Your task to perform on an android device: Open Android settings Image 0: 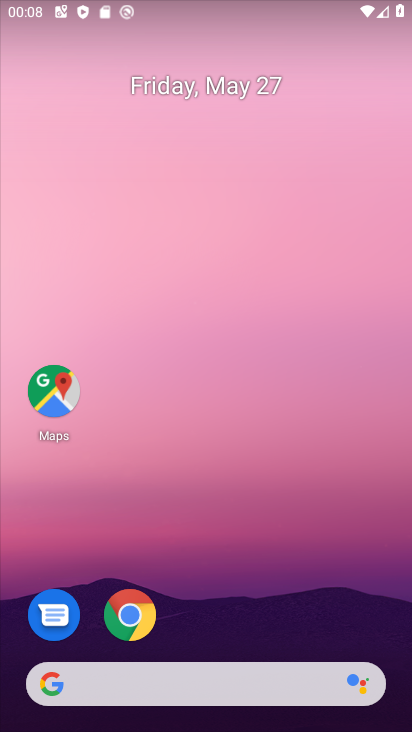
Step 0: drag from (380, 615) to (381, 148)
Your task to perform on an android device: Open Android settings Image 1: 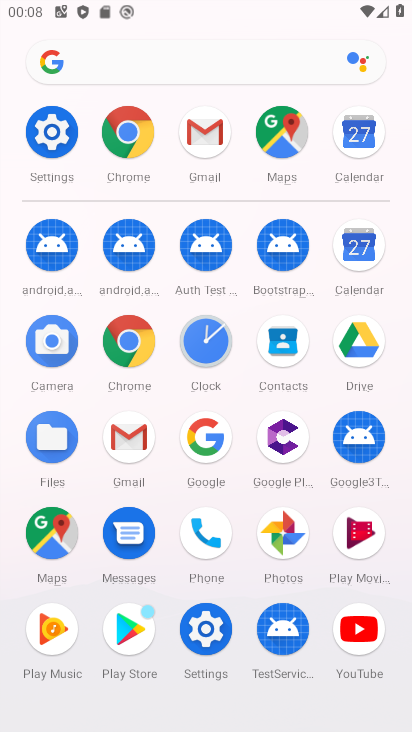
Step 1: click (213, 632)
Your task to perform on an android device: Open Android settings Image 2: 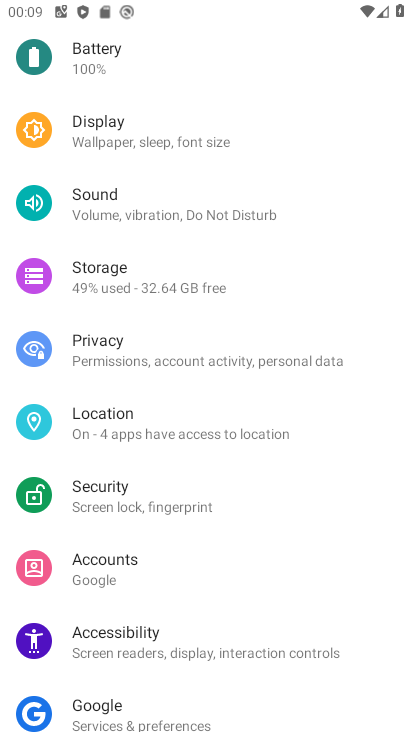
Step 2: drag from (326, 233) to (327, 326)
Your task to perform on an android device: Open Android settings Image 3: 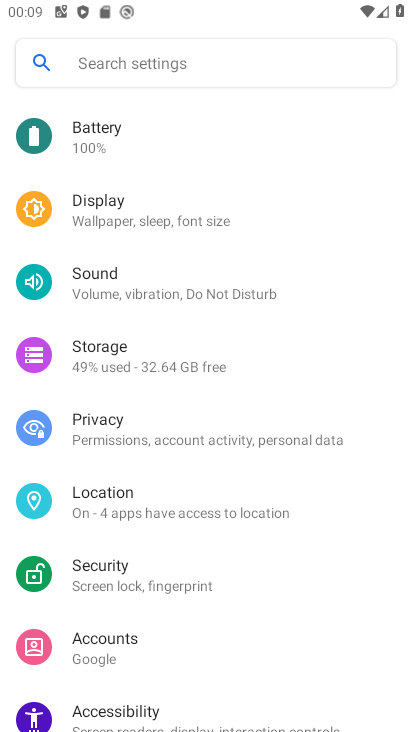
Step 3: drag from (355, 204) to (357, 322)
Your task to perform on an android device: Open Android settings Image 4: 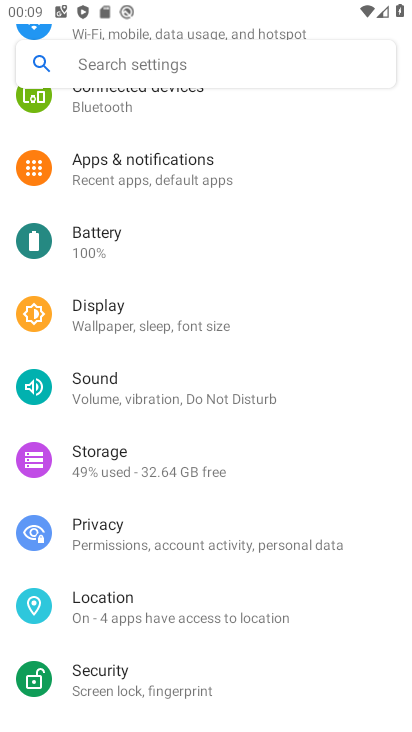
Step 4: drag from (367, 188) to (355, 333)
Your task to perform on an android device: Open Android settings Image 5: 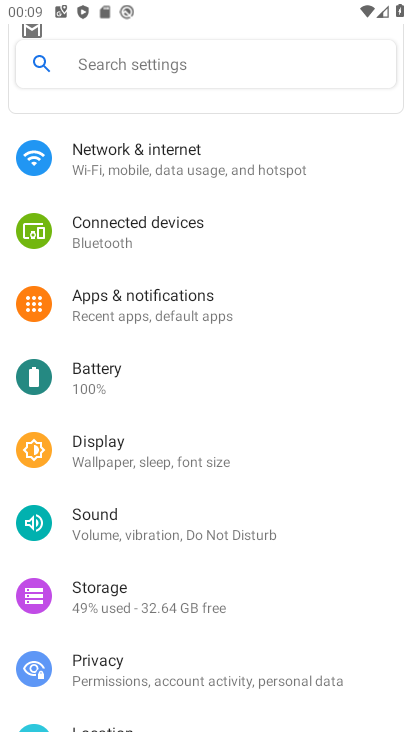
Step 5: drag from (350, 161) to (344, 303)
Your task to perform on an android device: Open Android settings Image 6: 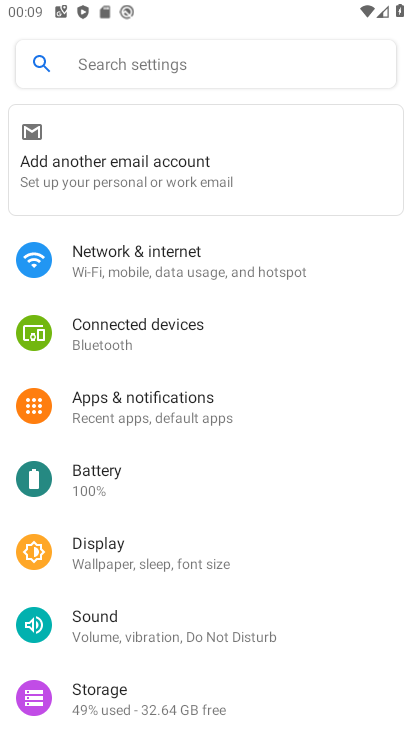
Step 6: drag from (351, 160) to (349, 279)
Your task to perform on an android device: Open Android settings Image 7: 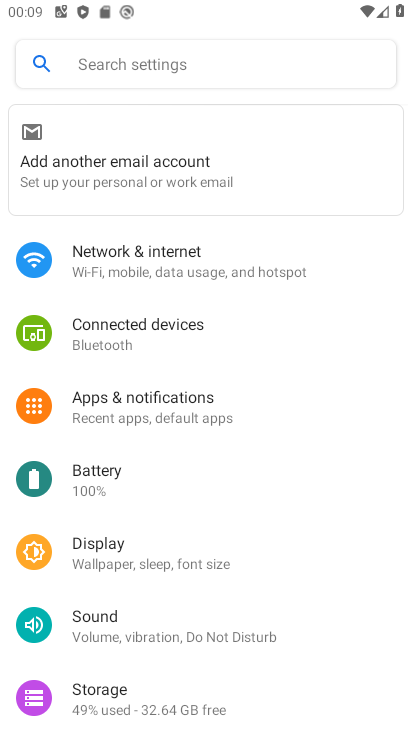
Step 7: drag from (326, 472) to (338, 235)
Your task to perform on an android device: Open Android settings Image 8: 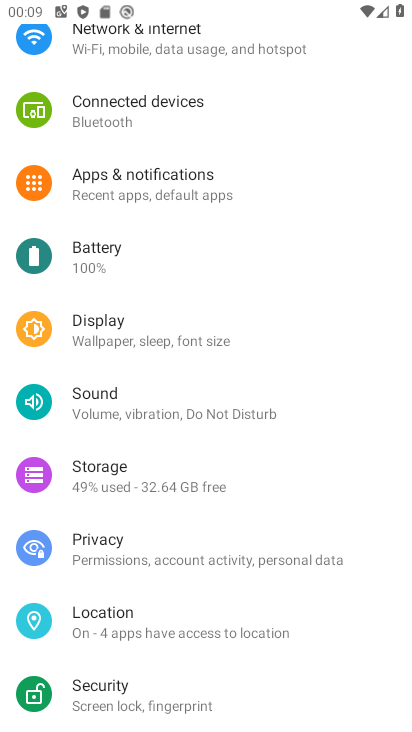
Step 8: drag from (327, 430) to (340, 253)
Your task to perform on an android device: Open Android settings Image 9: 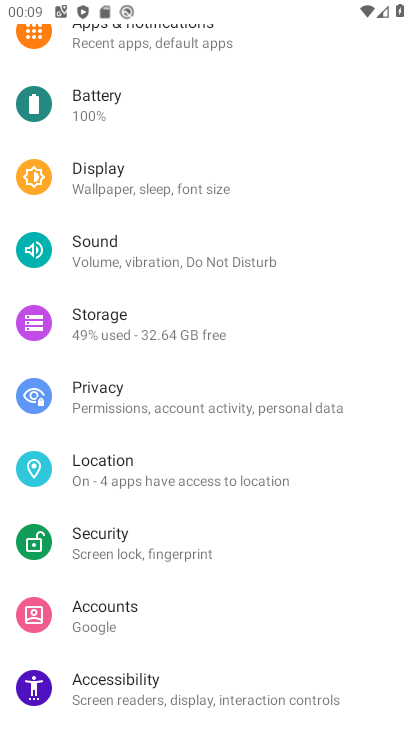
Step 9: drag from (336, 441) to (346, 307)
Your task to perform on an android device: Open Android settings Image 10: 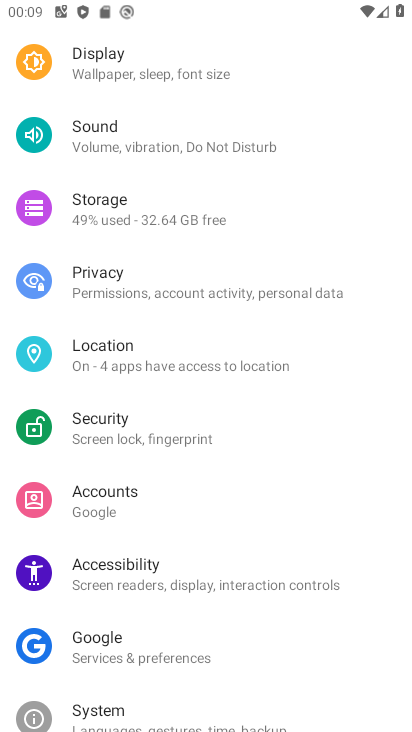
Step 10: drag from (337, 448) to (348, 314)
Your task to perform on an android device: Open Android settings Image 11: 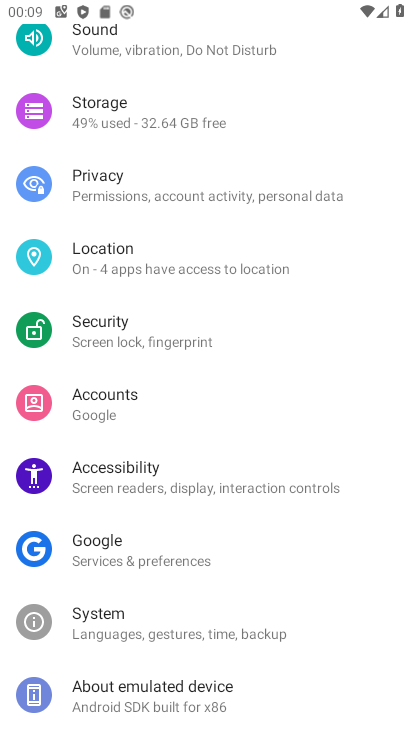
Step 11: drag from (332, 452) to (345, 340)
Your task to perform on an android device: Open Android settings Image 12: 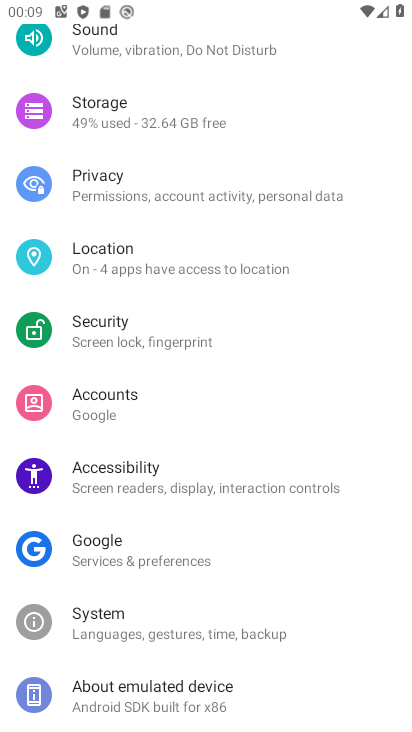
Step 12: drag from (339, 435) to (344, 340)
Your task to perform on an android device: Open Android settings Image 13: 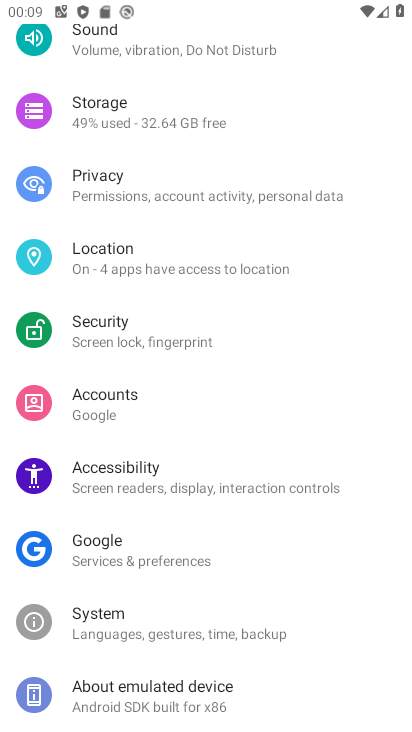
Step 13: click (267, 646)
Your task to perform on an android device: Open Android settings Image 14: 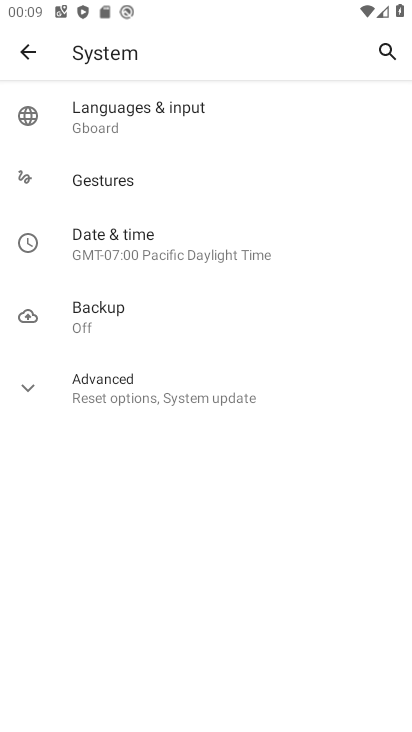
Step 14: click (281, 380)
Your task to perform on an android device: Open Android settings Image 15: 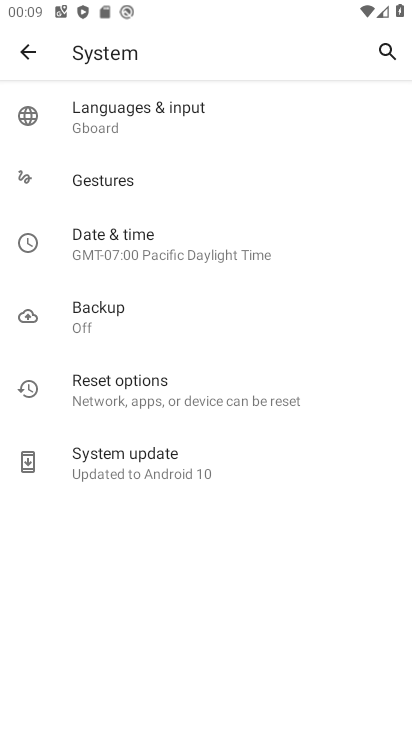
Step 15: task complete